Your task to perform on an android device: Open the calendar and show me this week's events? Image 0: 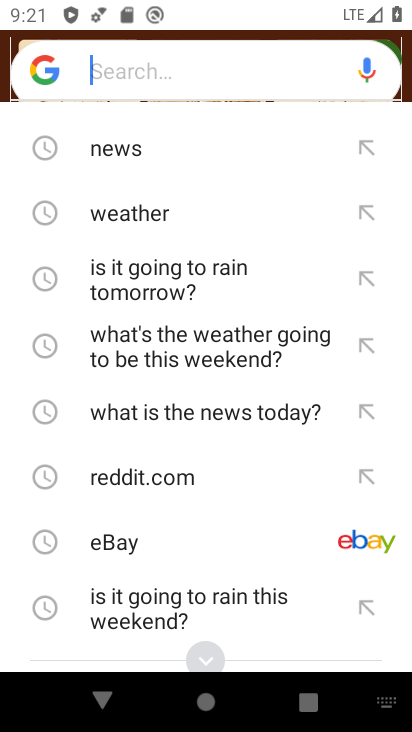
Step 0: press home button
Your task to perform on an android device: Open the calendar and show me this week's events? Image 1: 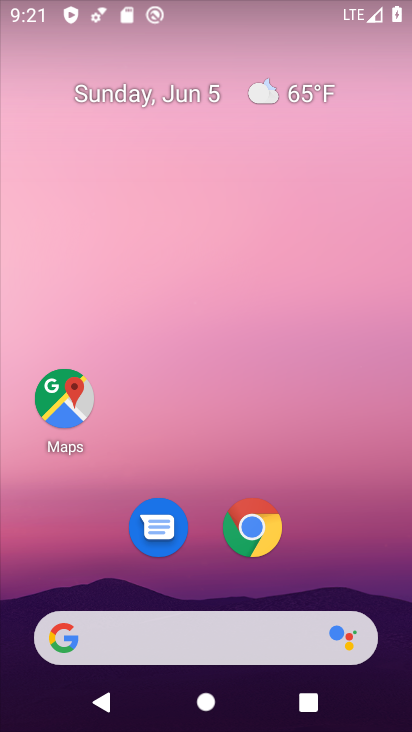
Step 1: drag from (179, 585) to (221, 132)
Your task to perform on an android device: Open the calendar and show me this week's events? Image 2: 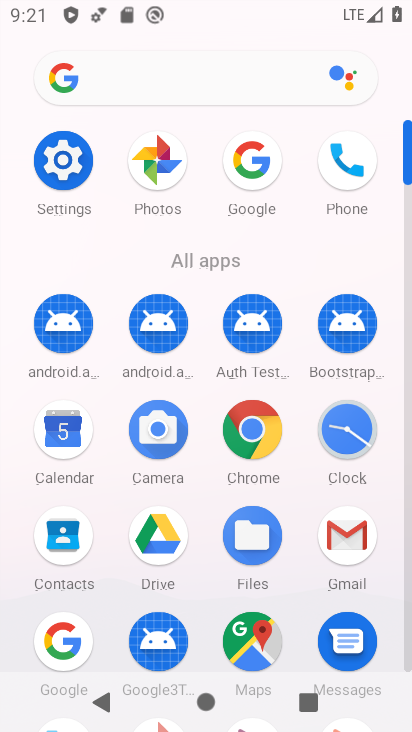
Step 2: click (48, 434)
Your task to perform on an android device: Open the calendar and show me this week's events? Image 3: 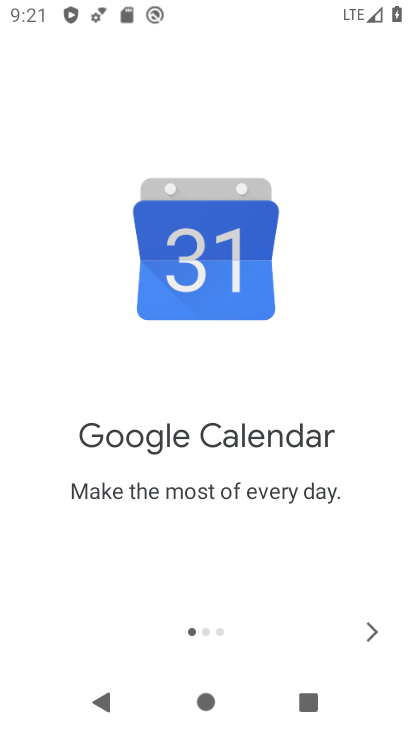
Step 3: click (367, 623)
Your task to perform on an android device: Open the calendar and show me this week's events? Image 4: 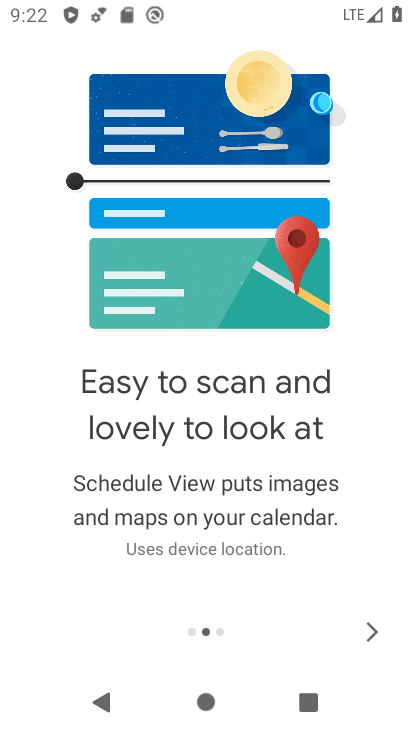
Step 4: click (374, 636)
Your task to perform on an android device: Open the calendar and show me this week's events? Image 5: 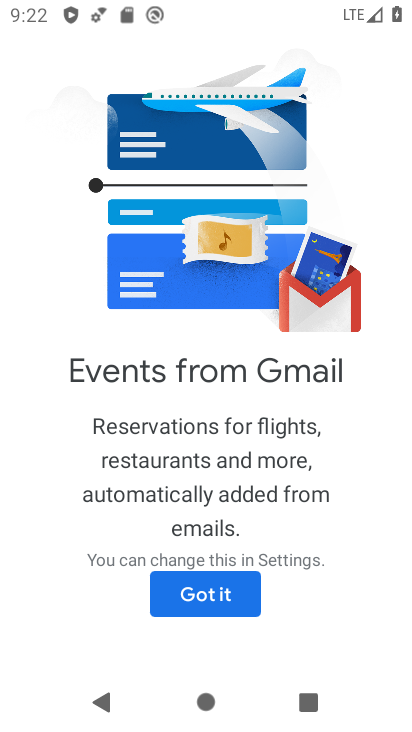
Step 5: click (211, 593)
Your task to perform on an android device: Open the calendar and show me this week's events? Image 6: 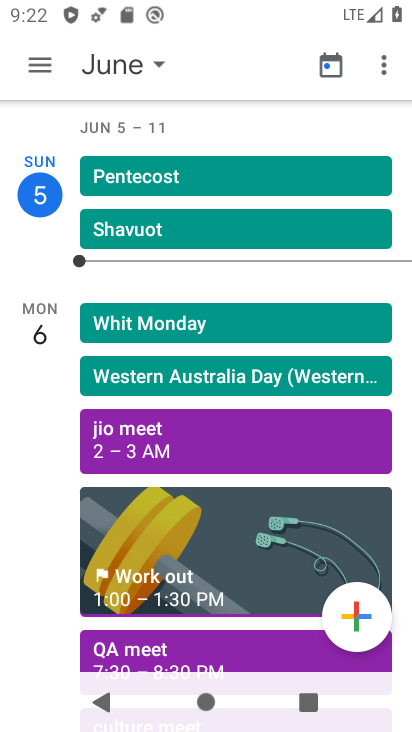
Step 6: drag from (149, 573) to (283, 35)
Your task to perform on an android device: Open the calendar and show me this week's events? Image 7: 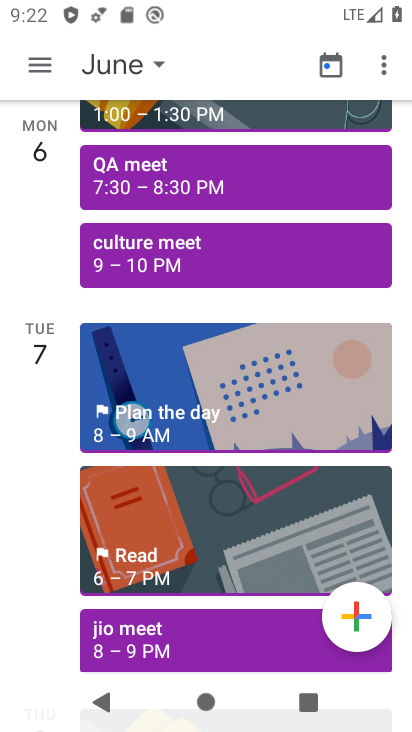
Step 7: drag from (206, 543) to (272, 46)
Your task to perform on an android device: Open the calendar and show me this week's events? Image 8: 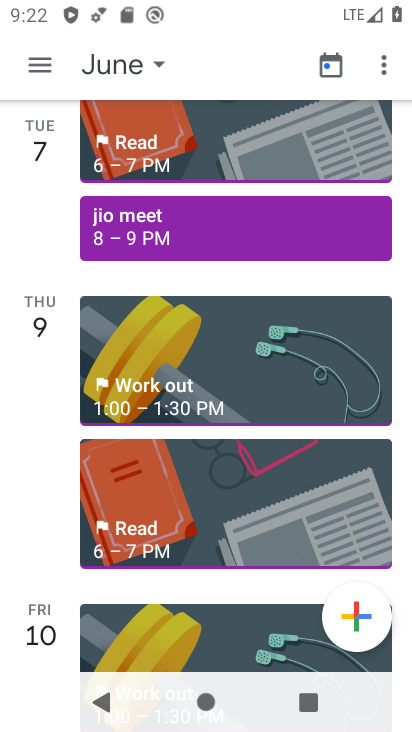
Step 8: click (144, 239)
Your task to perform on an android device: Open the calendar and show me this week's events? Image 9: 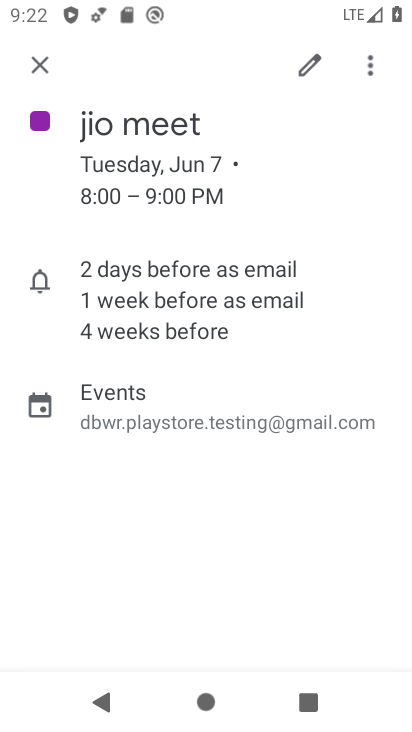
Step 9: task complete